Your task to perform on an android device: turn on data saver in the chrome app Image 0: 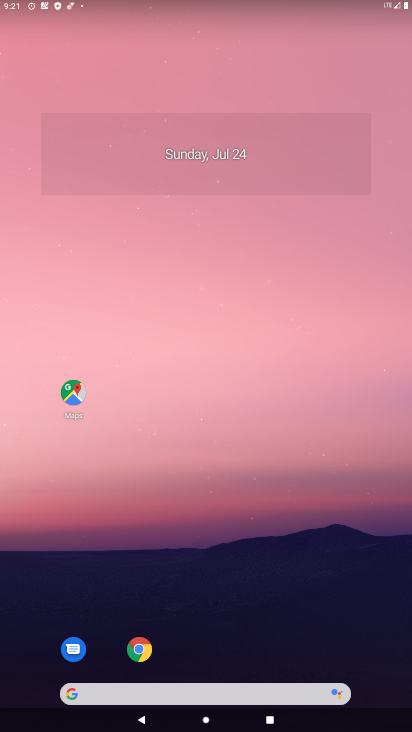
Step 0: drag from (42, 655) to (136, 229)
Your task to perform on an android device: turn on data saver in the chrome app Image 1: 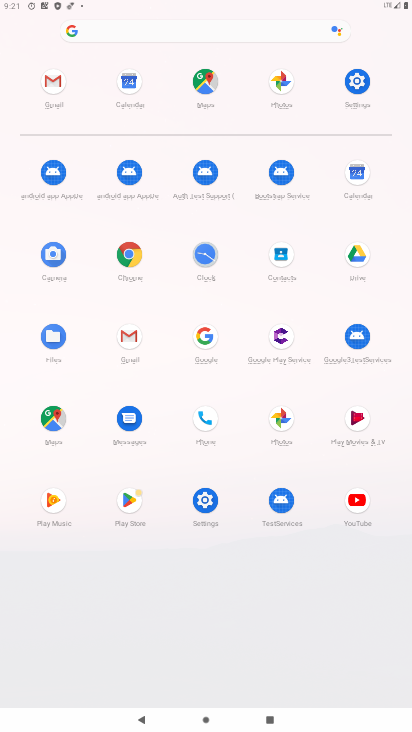
Step 1: click (353, 93)
Your task to perform on an android device: turn on data saver in the chrome app Image 2: 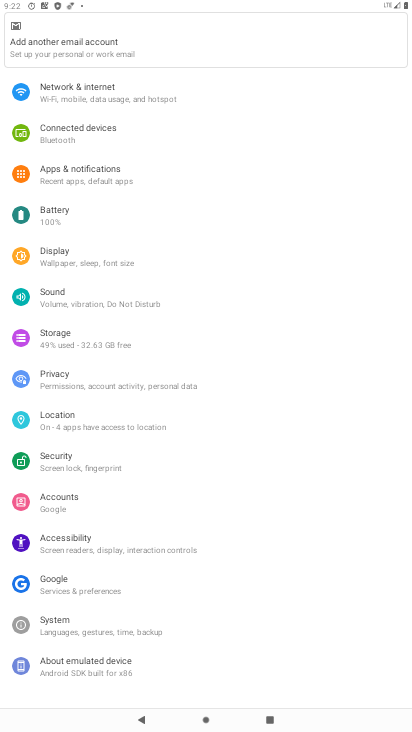
Step 2: click (79, 95)
Your task to perform on an android device: turn on data saver in the chrome app Image 3: 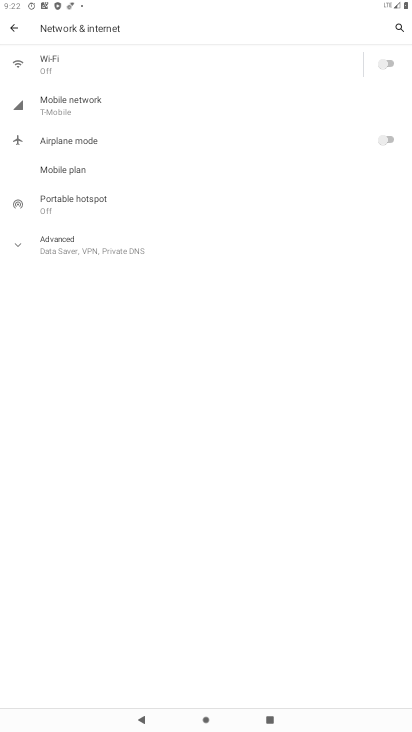
Step 3: click (68, 114)
Your task to perform on an android device: turn on data saver in the chrome app Image 4: 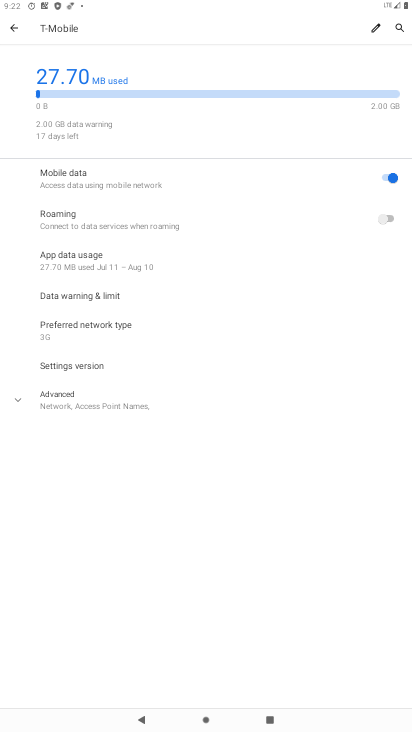
Step 4: task complete